Your task to perform on an android device: Open display settings Image 0: 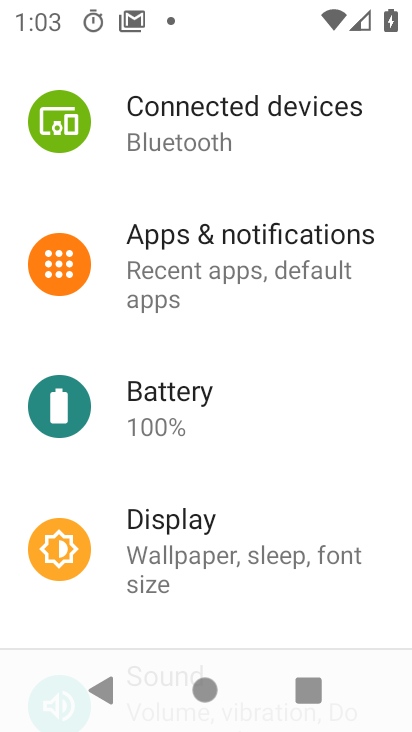
Step 0: click (167, 549)
Your task to perform on an android device: Open display settings Image 1: 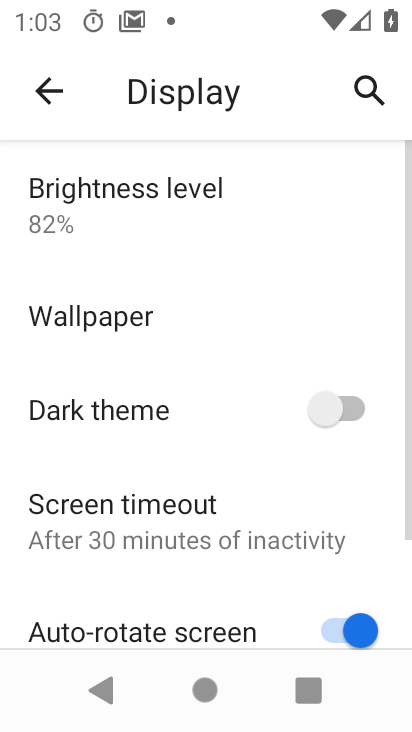
Step 1: task complete